Your task to perform on an android device: turn off wifi Image 0: 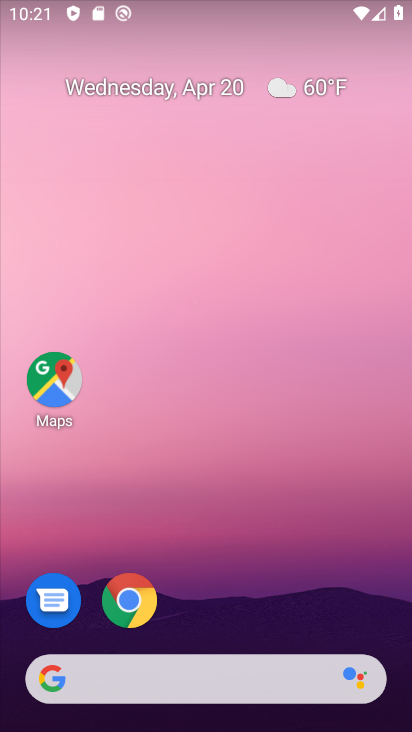
Step 0: press home button
Your task to perform on an android device: turn off wifi Image 1: 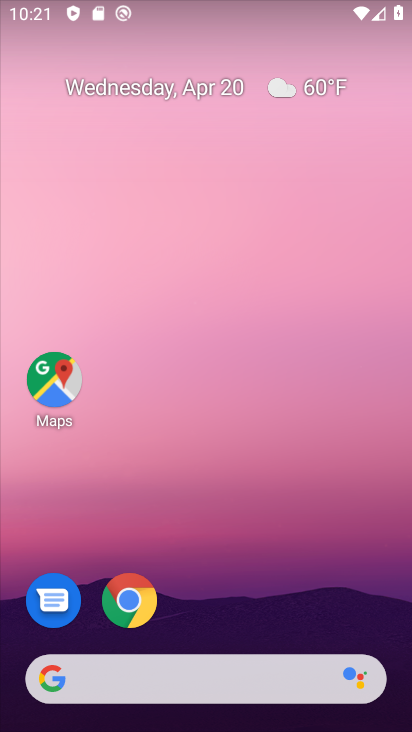
Step 1: drag from (250, 25) to (341, 587)
Your task to perform on an android device: turn off wifi Image 2: 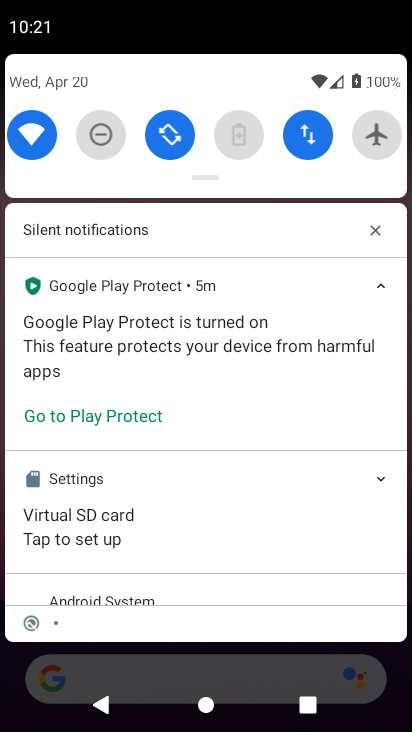
Step 2: click (32, 134)
Your task to perform on an android device: turn off wifi Image 3: 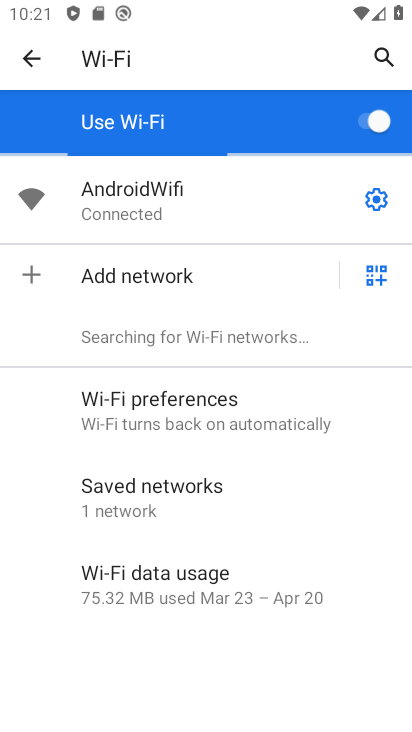
Step 3: click (341, 116)
Your task to perform on an android device: turn off wifi Image 4: 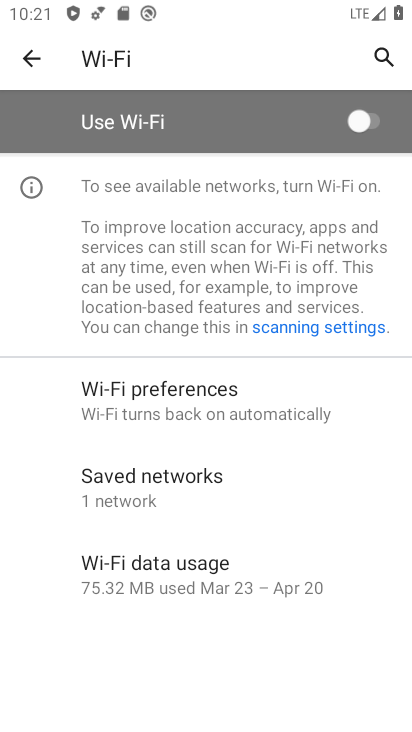
Step 4: task complete